Your task to perform on an android device: make emails show in primary in the gmail app Image 0: 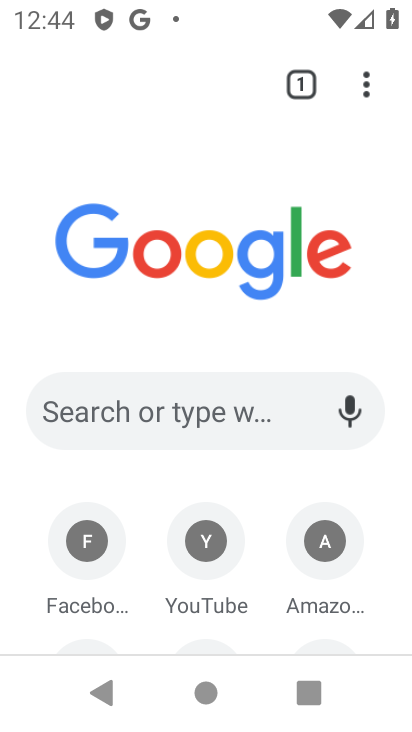
Step 0: press home button
Your task to perform on an android device: make emails show in primary in the gmail app Image 1: 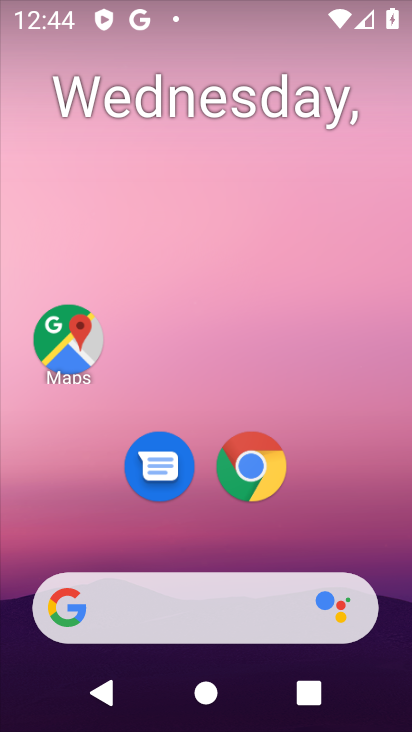
Step 1: drag from (322, 509) to (313, 90)
Your task to perform on an android device: make emails show in primary in the gmail app Image 2: 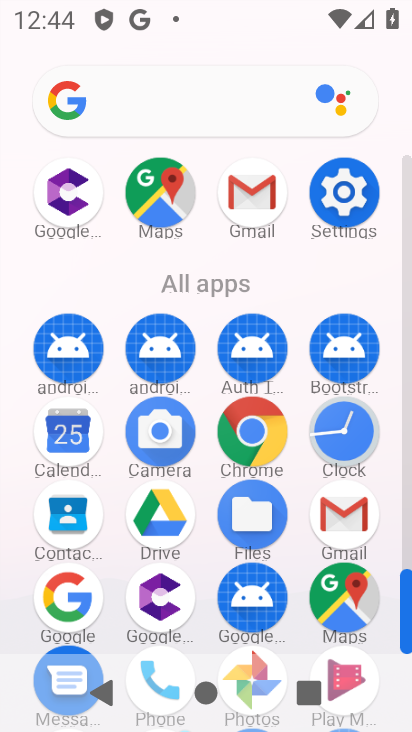
Step 2: click (241, 199)
Your task to perform on an android device: make emails show in primary in the gmail app Image 3: 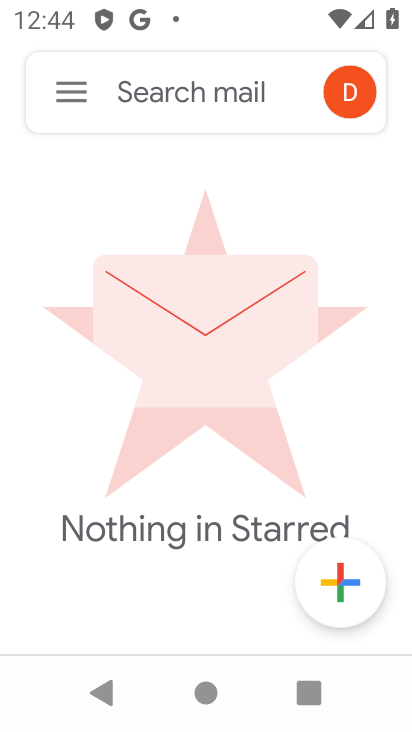
Step 3: click (56, 91)
Your task to perform on an android device: make emails show in primary in the gmail app Image 4: 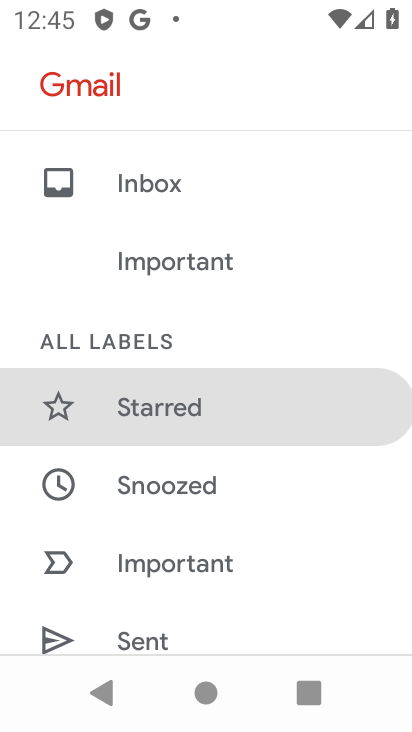
Step 4: drag from (305, 574) to (302, 263)
Your task to perform on an android device: make emails show in primary in the gmail app Image 5: 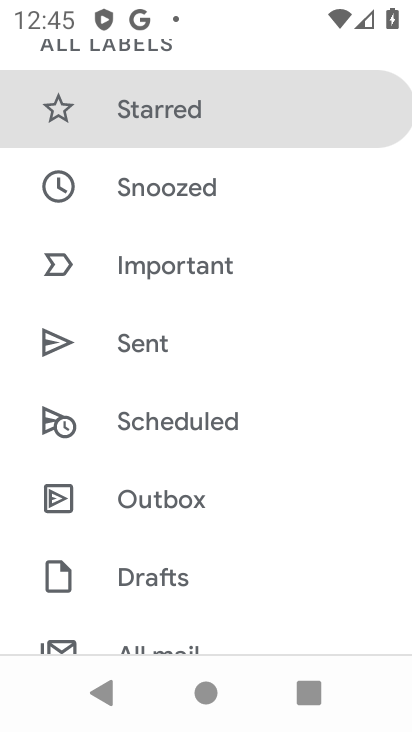
Step 5: drag from (209, 558) to (253, 254)
Your task to perform on an android device: make emails show in primary in the gmail app Image 6: 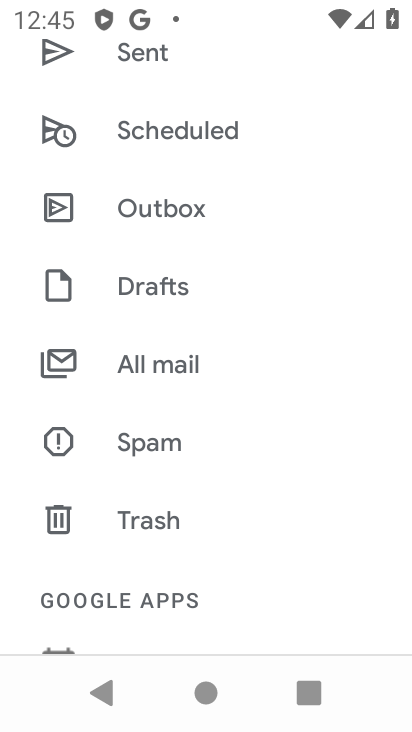
Step 6: drag from (295, 185) to (303, 715)
Your task to perform on an android device: make emails show in primary in the gmail app Image 7: 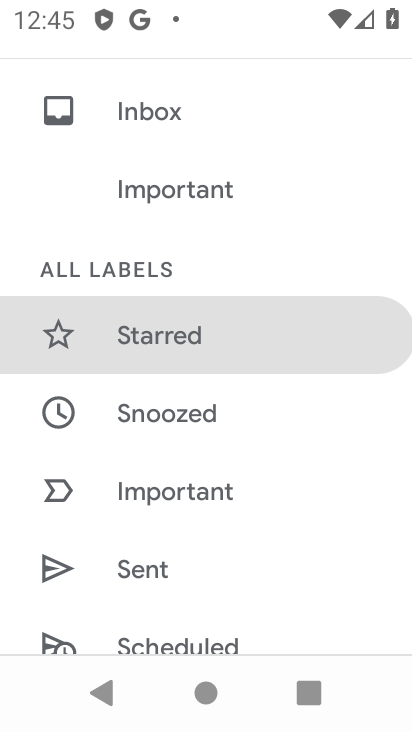
Step 7: drag from (254, 587) to (289, 272)
Your task to perform on an android device: make emails show in primary in the gmail app Image 8: 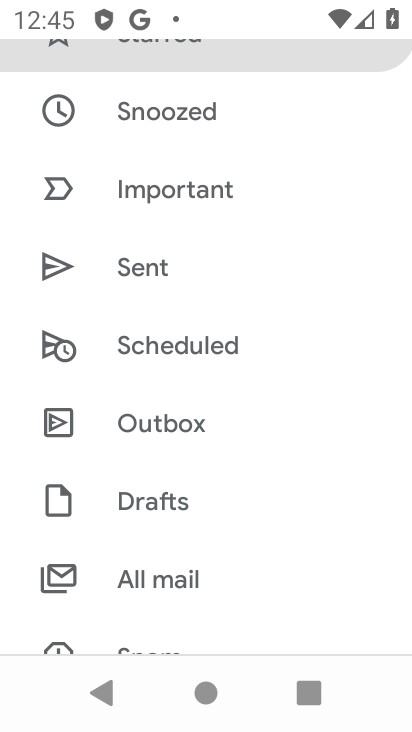
Step 8: drag from (325, 188) to (315, 656)
Your task to perform on an android device: make emails show in primary in the gmail app Image 9: 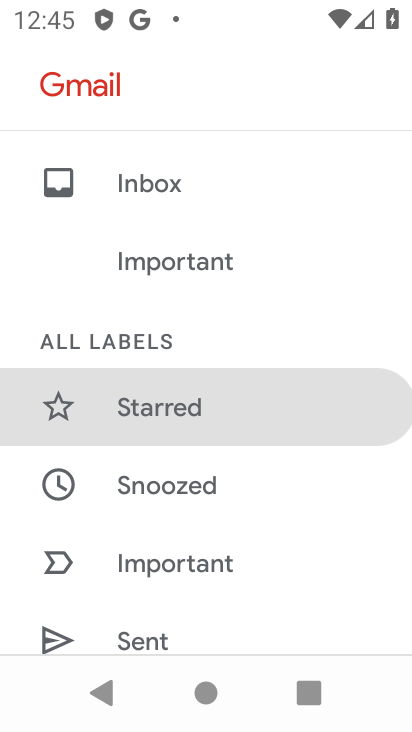
Step 9: click (190, 187)
Your task to perform on an android device: make emails show in primary in the gmail app Image 10: 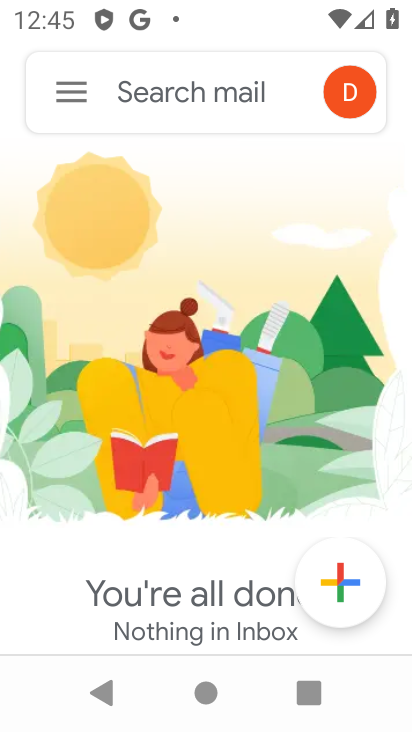
Step 10: click (70, 85)
Your task to perform on an android device: make emails show in primary in the gmail app Image 11: 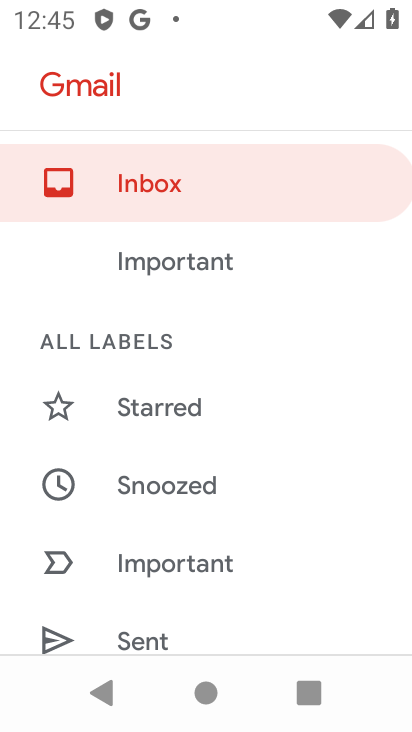
Step 11: task complete